Your task to perform on an android device: Go to CNN.com Image 0: 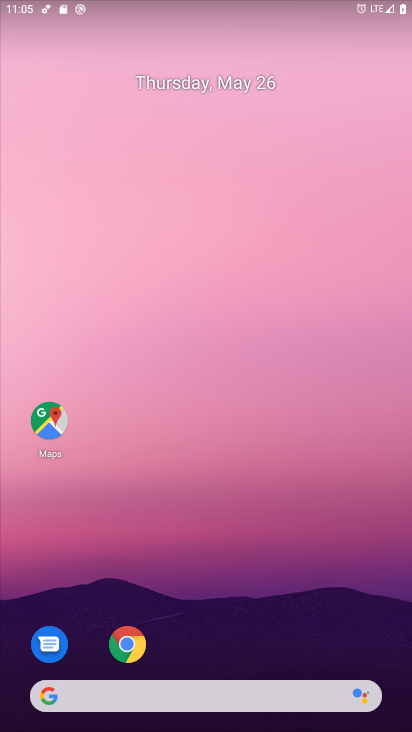
Step 0: drag from (361, 630) to (350, 236)
Your task to perform on an android device: Go to CNN.com Image 1: 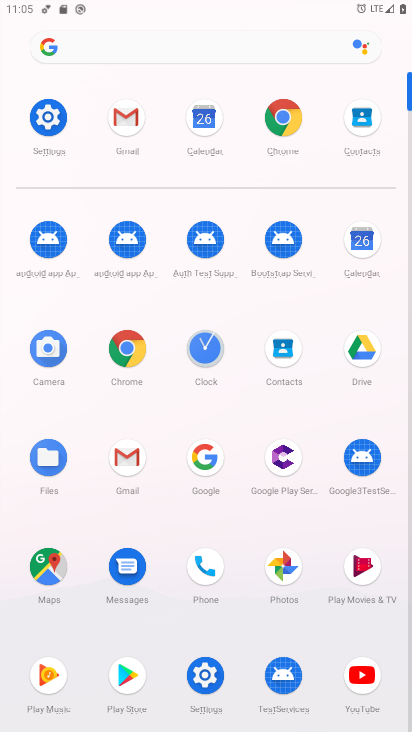
Step 1: click (131, 355)
Your task to perform on an android device: Go to CNN.com Image 2: 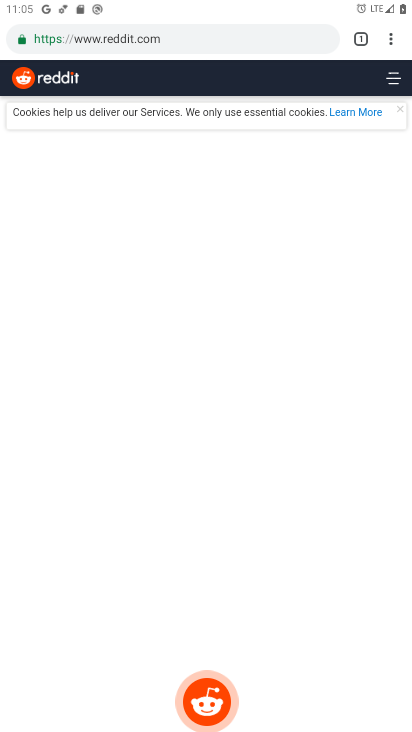
Step 2: click (204, 31)
Your task to perform on an android device: Go to CNN.com Image 3: 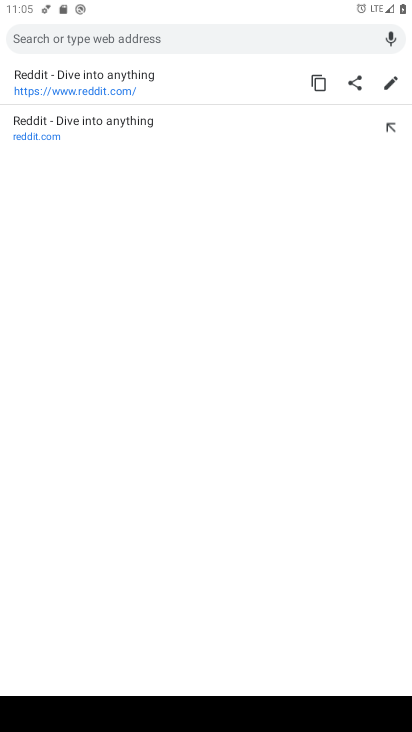
Step 3: type "cnn.com"
Your task to perform on an android device: Go to CNN.com Image 4: 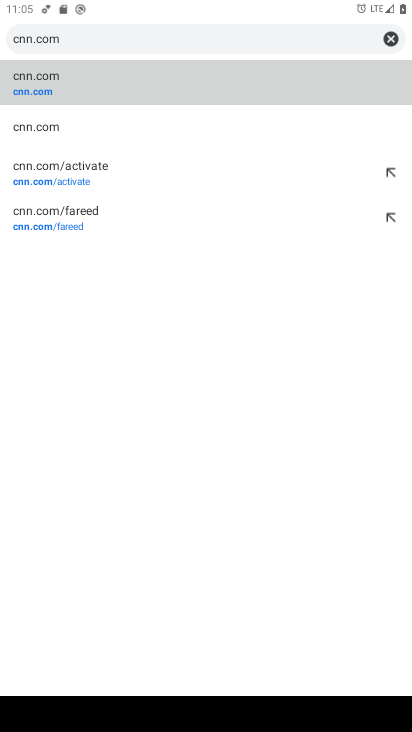
Step 4: click (53, 74)
Your task to perform on an android device: Go to CNN.com Image 5: 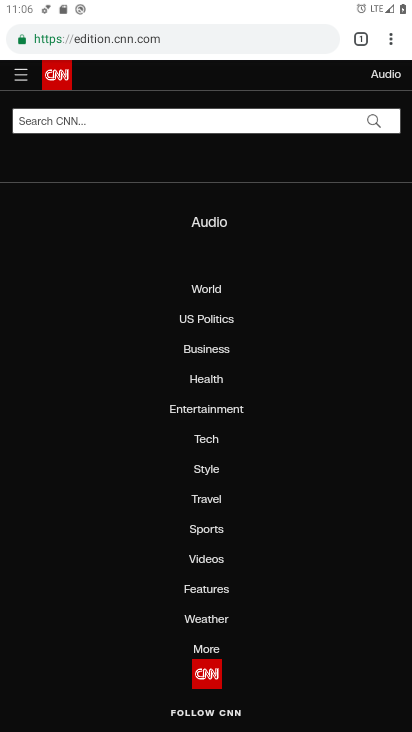
Step 5: task complete